Your task to perform on an android device: check battery use Image 0: 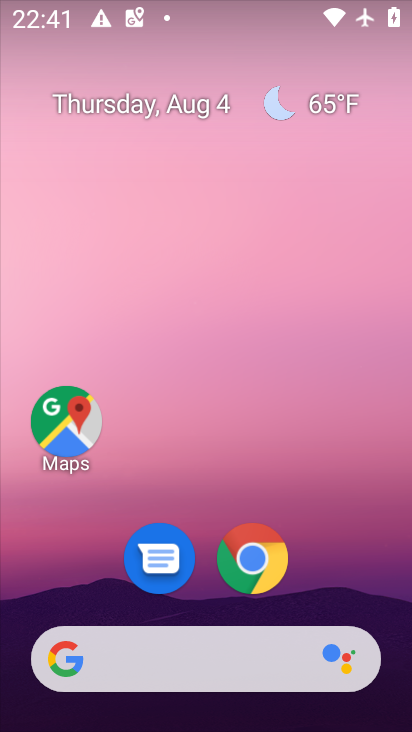
Step 0: drag from (367, 540) to (266, 121)
Your task to perform on an android device: check battery use Image 1: 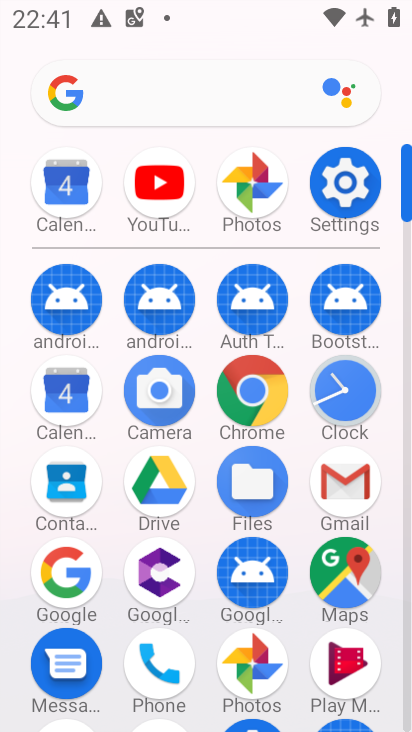
Step 1: click (333, 181)
Your task to perform on an android device: check battery use Image 2: 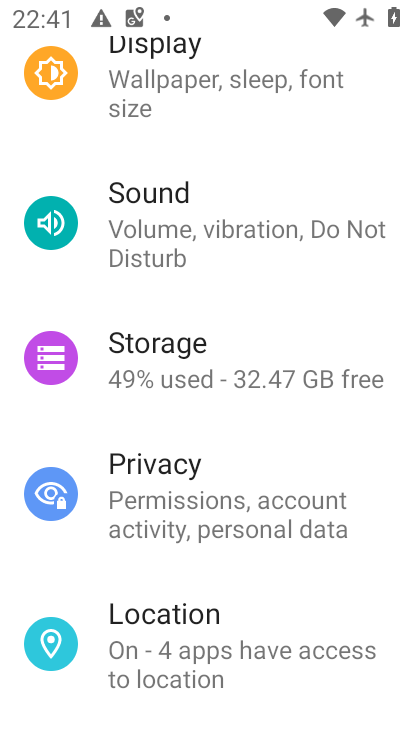
Step 2: drag from (284, 135) to (229, 713)
Your task to perform on an android device: check battery use Image 3: 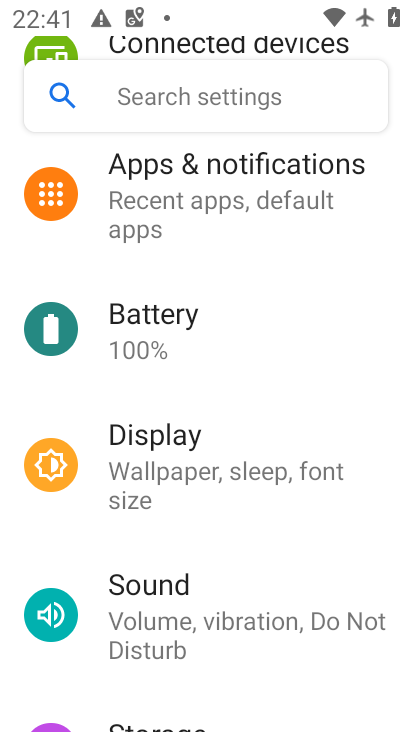
Step 3: click (160, 349)
Your task to perform on an android device: check battery use Image 4: 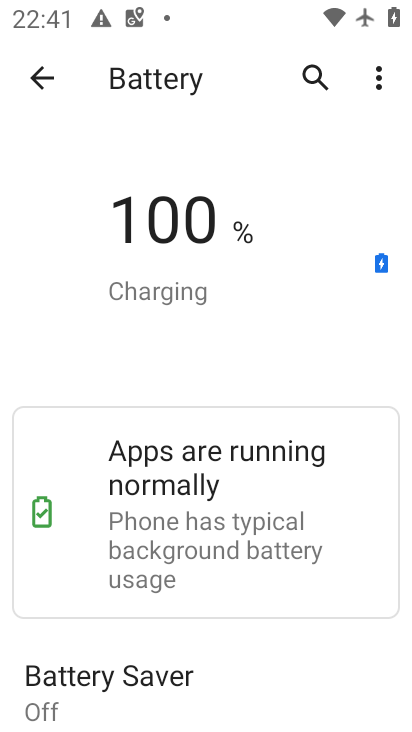
Step 4: click (378, 88)
Your task to perform on an android device: check battery use Image 5: 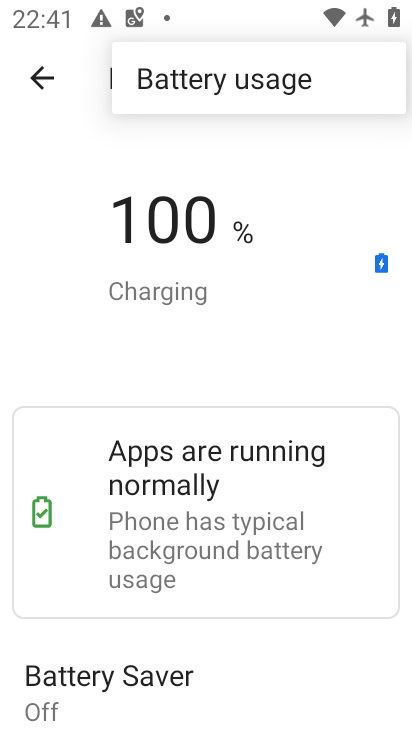
Step 5: click (272, 71)
Your task to perform on an android device: check battery use Image 6: 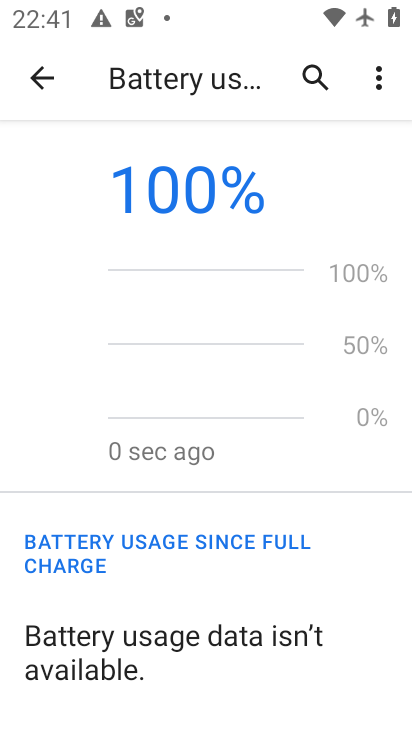
Step 6: task complete